Your task to perform on an android device: open app "Contacts" (install if not already installed) Image 0: 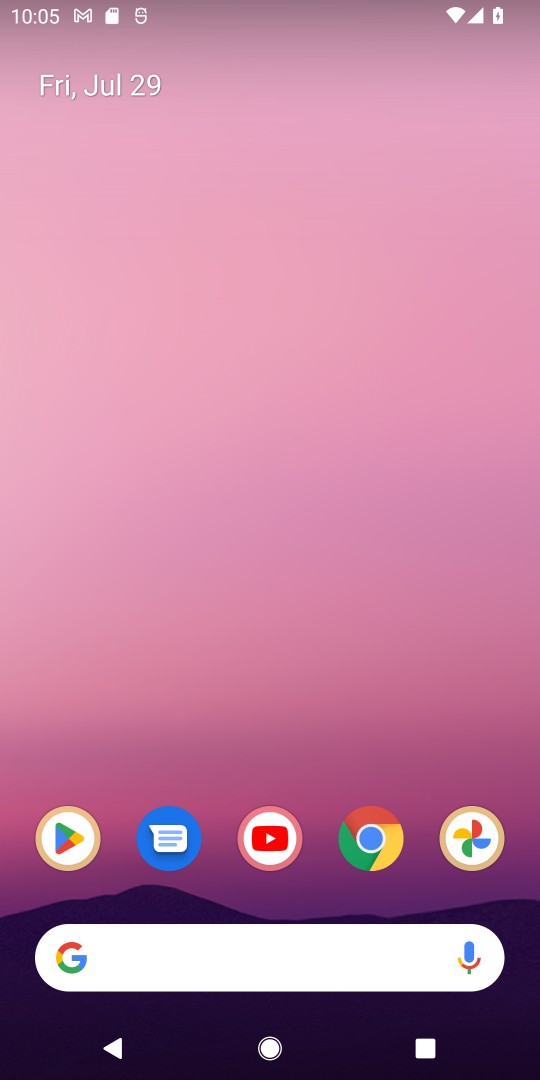
Step 0: drag from (210, 854) to (410, 0)
Your task to perform on an android device: open app "Contacts" (install if not already installed) Image 1: 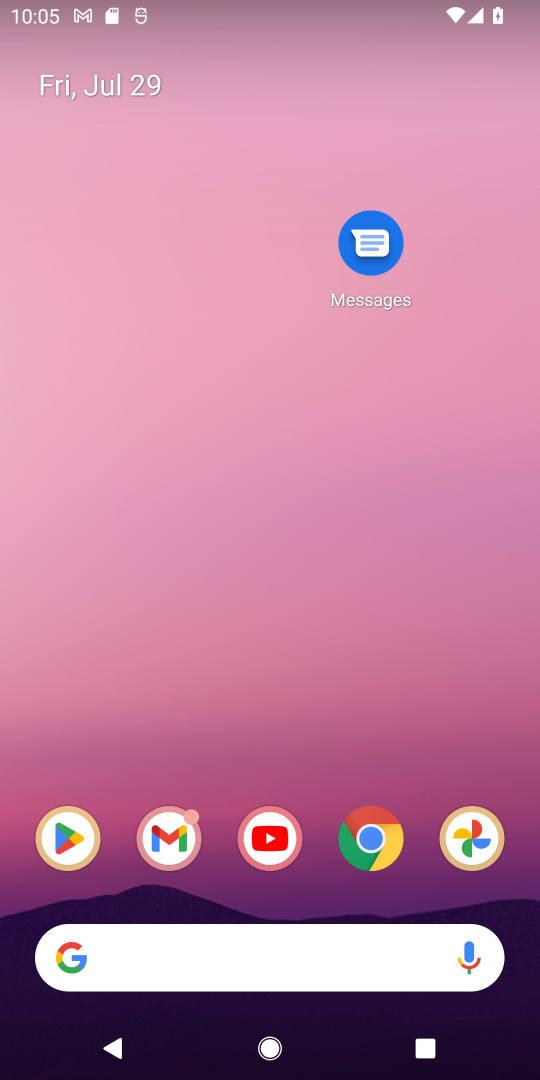
Step 1: click (314, 899)
Your task to perform on an android device: open app "Contacts" (install if not already installed) Image 2: 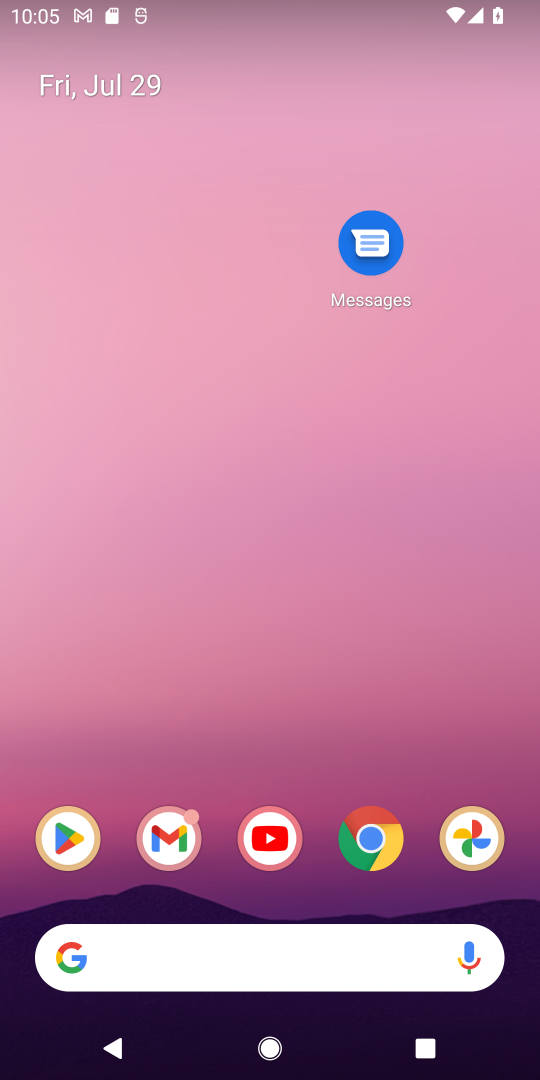
Step 2: drag from (299, 915) to (344, 0)
Your task to perform on an android device: open app "Contacts" (install if not already installed) Image 3: 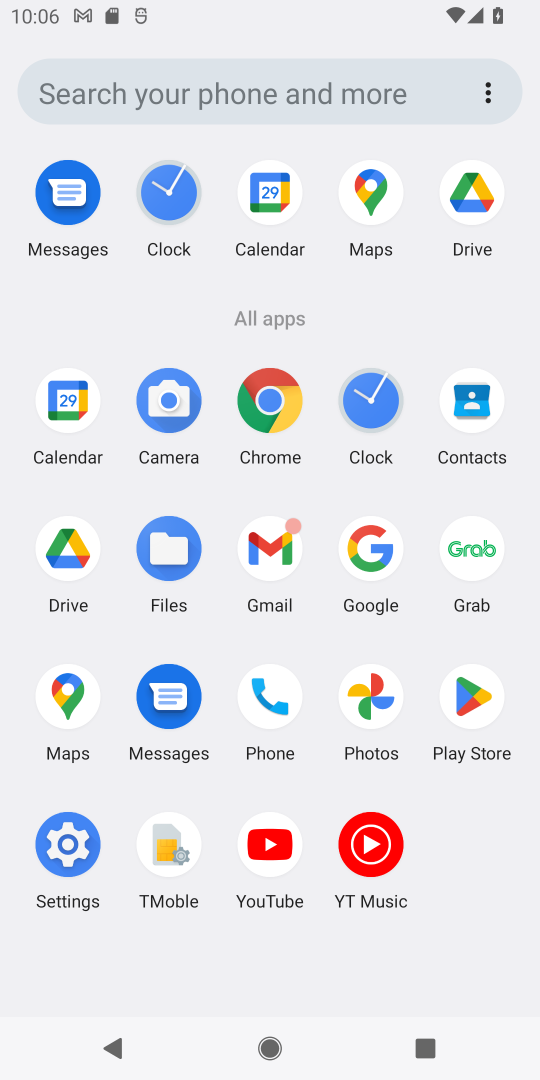
Step 3: click (466, 422)
Your task to perform on an android device: open app "Contacts" (install if not already installed) Image 4: 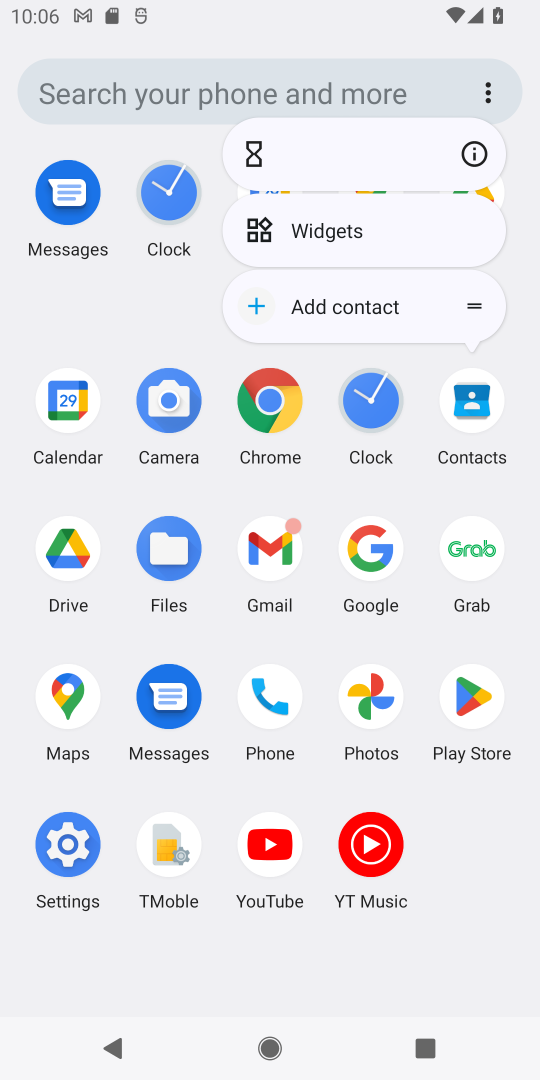
Step 4: click (468, 421)
Your task to perform on an android device: open app "Contacts" (install if not already installed) Image 5: 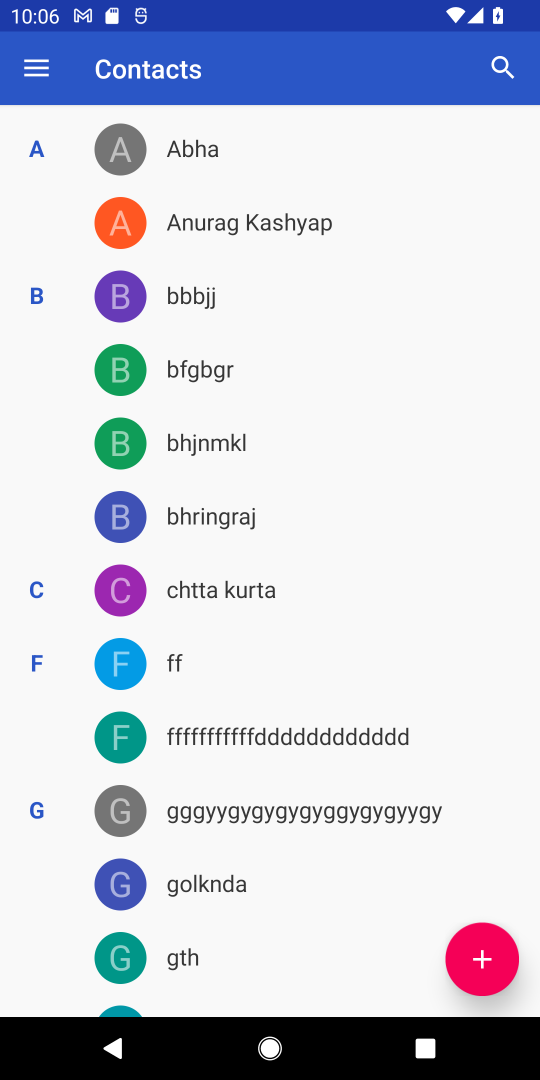
Step 5: task complete